Your task to perform on an android device: Go to Google Image 0: 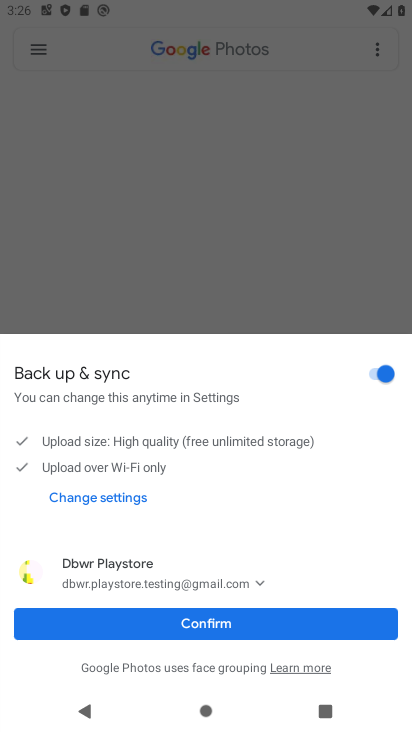
Step 0: press home button
Your task to perform on an android device: Go to Google Image 1: 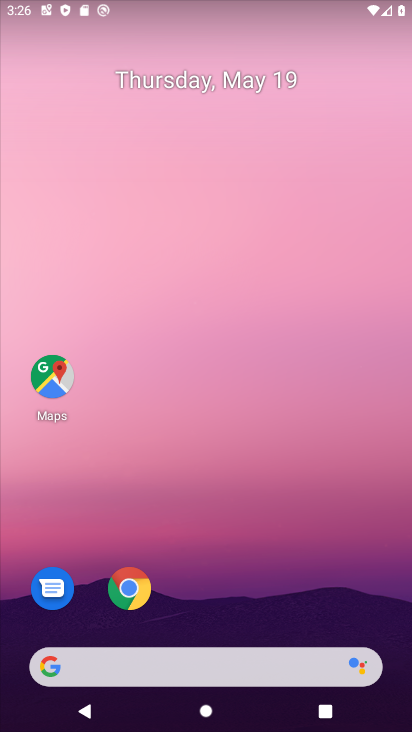
Step 1: click (146, 676)
Your task to perform on an android device: Go to Google Image 2: 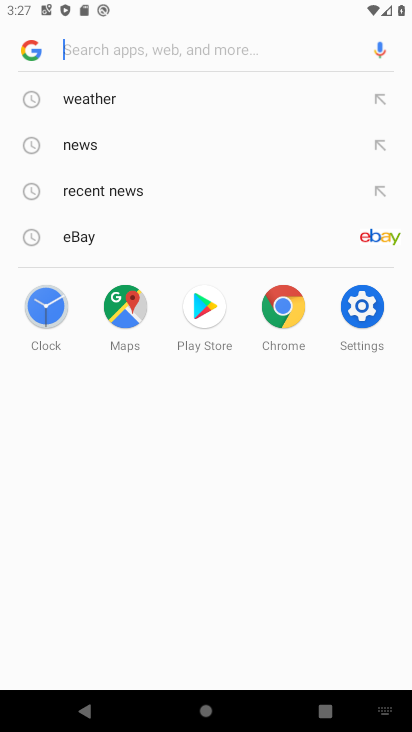
Step 2: task complete